Your task to perform on an android device: Open Chrome and go to settings Image 0: 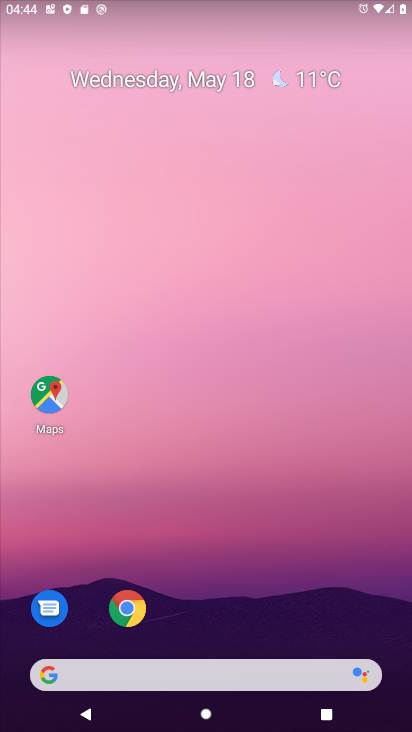
Step 0: click (132, 609)
Your task to perform on an android device: Open Chrome and go to settings Image 1: 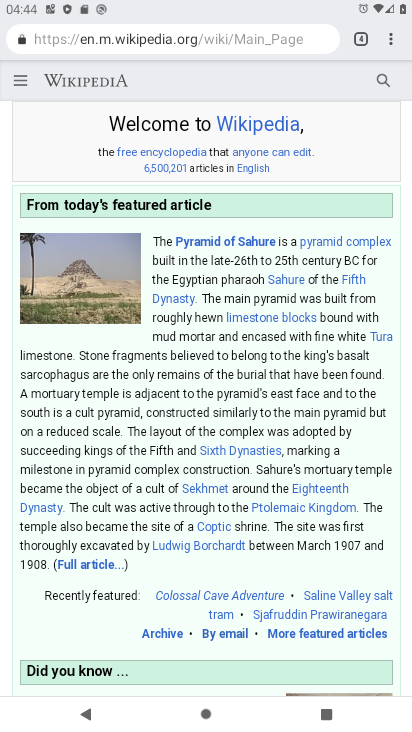
Step 1: click (385, 35)
Your task to perform on an android device: Open Chrome and go to settings Image 2: 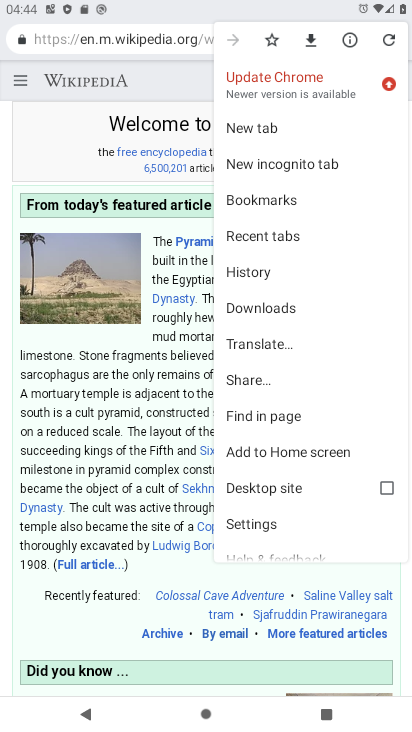
Step 2: click (244, 520)
Your task to perform on an android device: Open Chrome and go to settings Image 3: 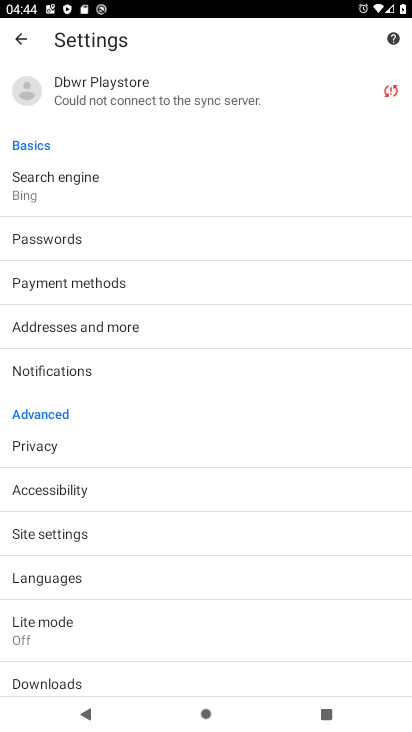
Step 3: task complete